Your task to perform on an android device: turn off data saver in the chrome app Image 0: 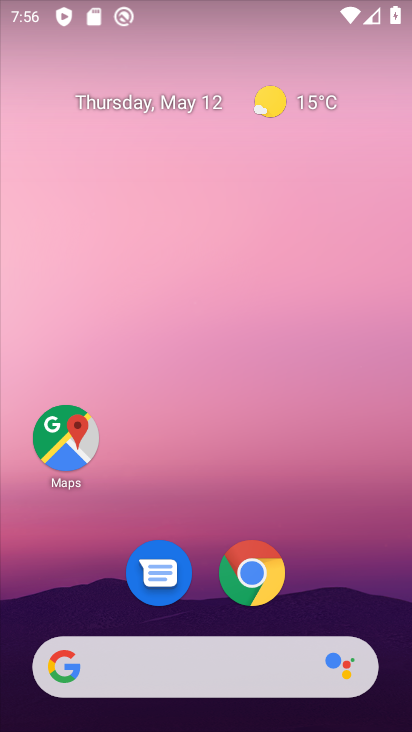
Step 0: click (259, 579)
Your task to perform on an android device: turn off data saver in the chrome app Image 1: 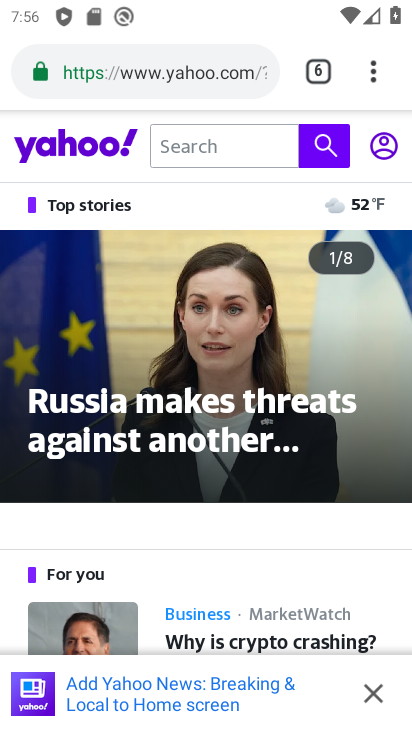
Step 1: click (378, 69)
Your task to perform on an android device: turn off data saver in the chrome app Image 2: 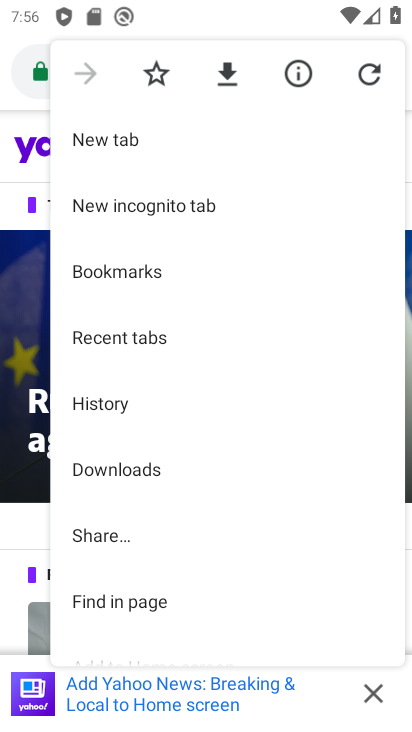
Step 2: drag from (182, 516) to (148, 197)
Your task to perform on an android device: turn off data saver in the chrome app Image 3: 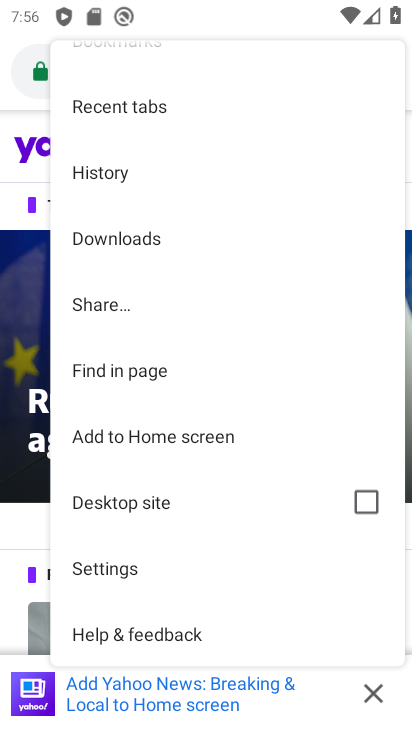
Step 3: click (112, 565)
Your task to perform on an android device: turn off data saver in the chrome app Image 4: 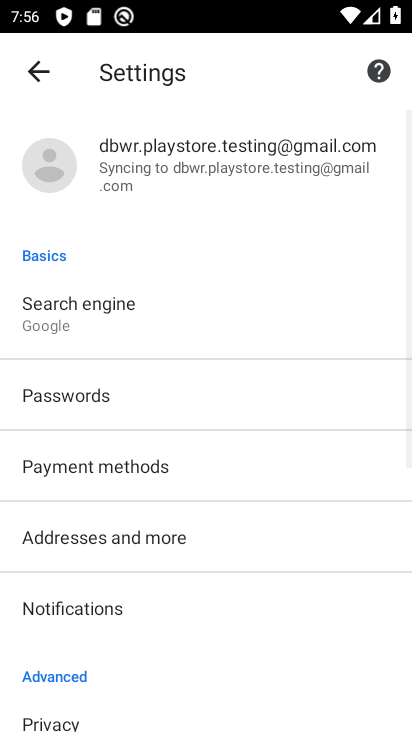
Step 4: drag from (234, 466) to (171, 160)
Your task to perform on an android device: turn off data saver in the chrome app Image 5: 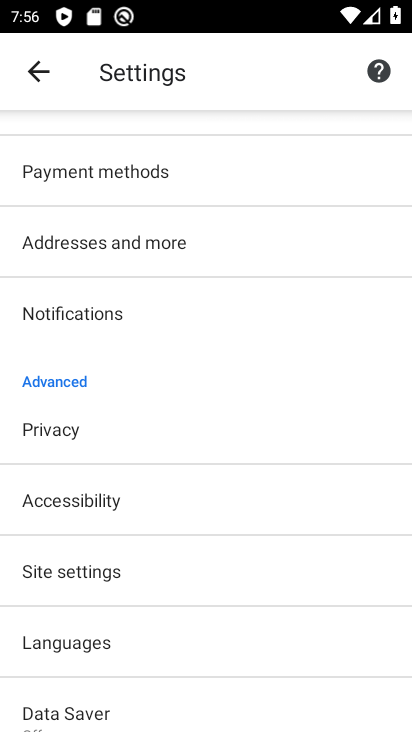
Step 5: click (85, 715)
Your task to perform on an android device: turn off data saver in the chrome app Image 6: 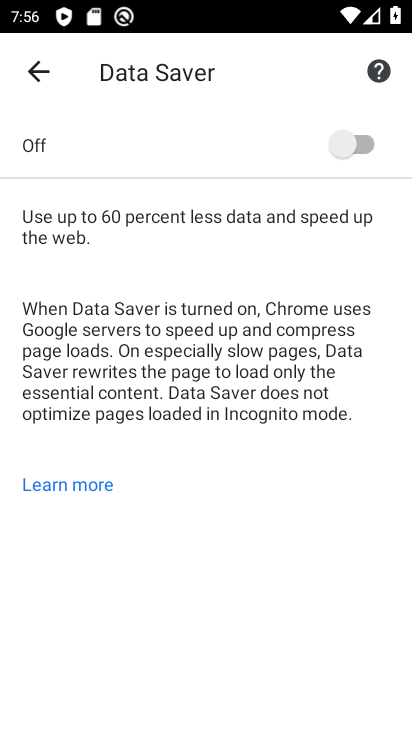
Step 6: task complete